Your task to perform on an android device: check data usage Image 0: 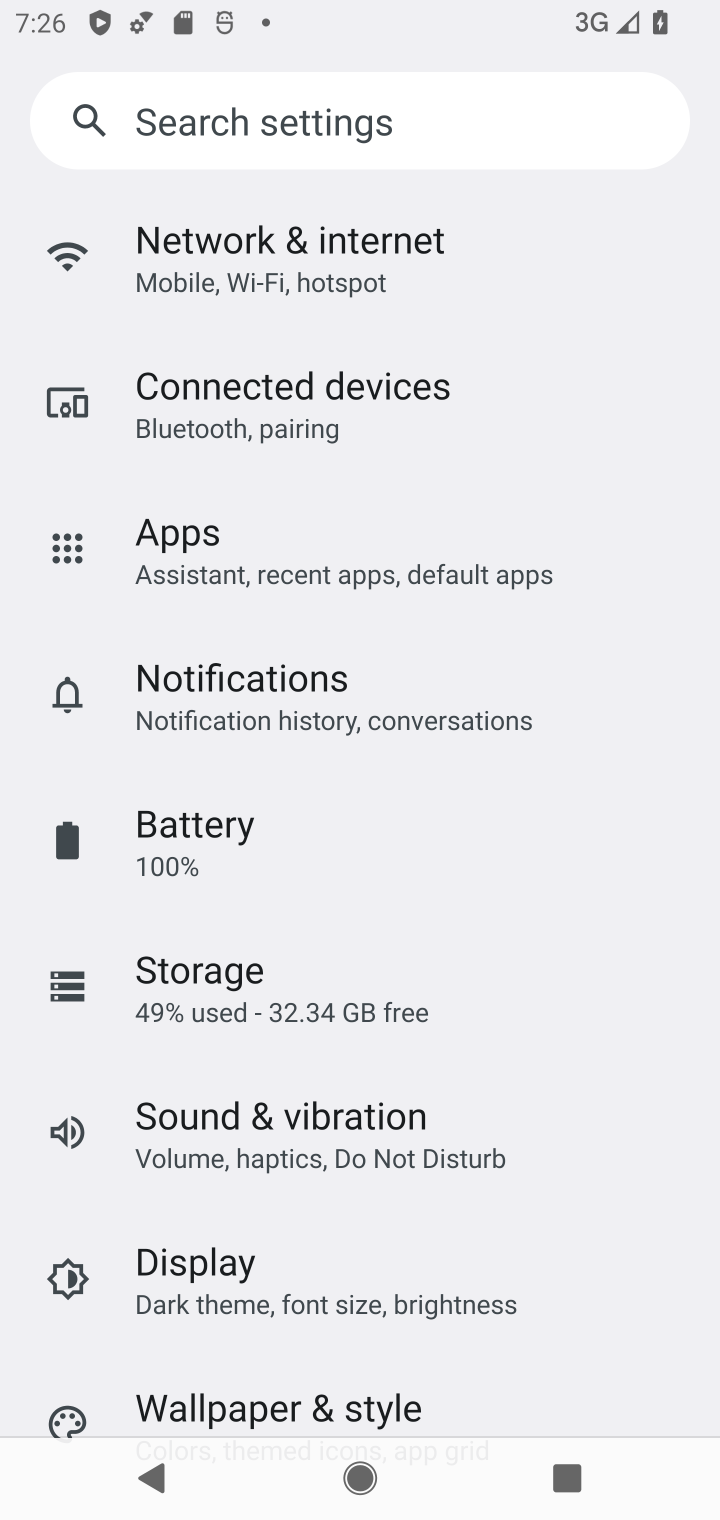
Step 0: press home button
Your task to perform on an android device: check data usage Image 1: 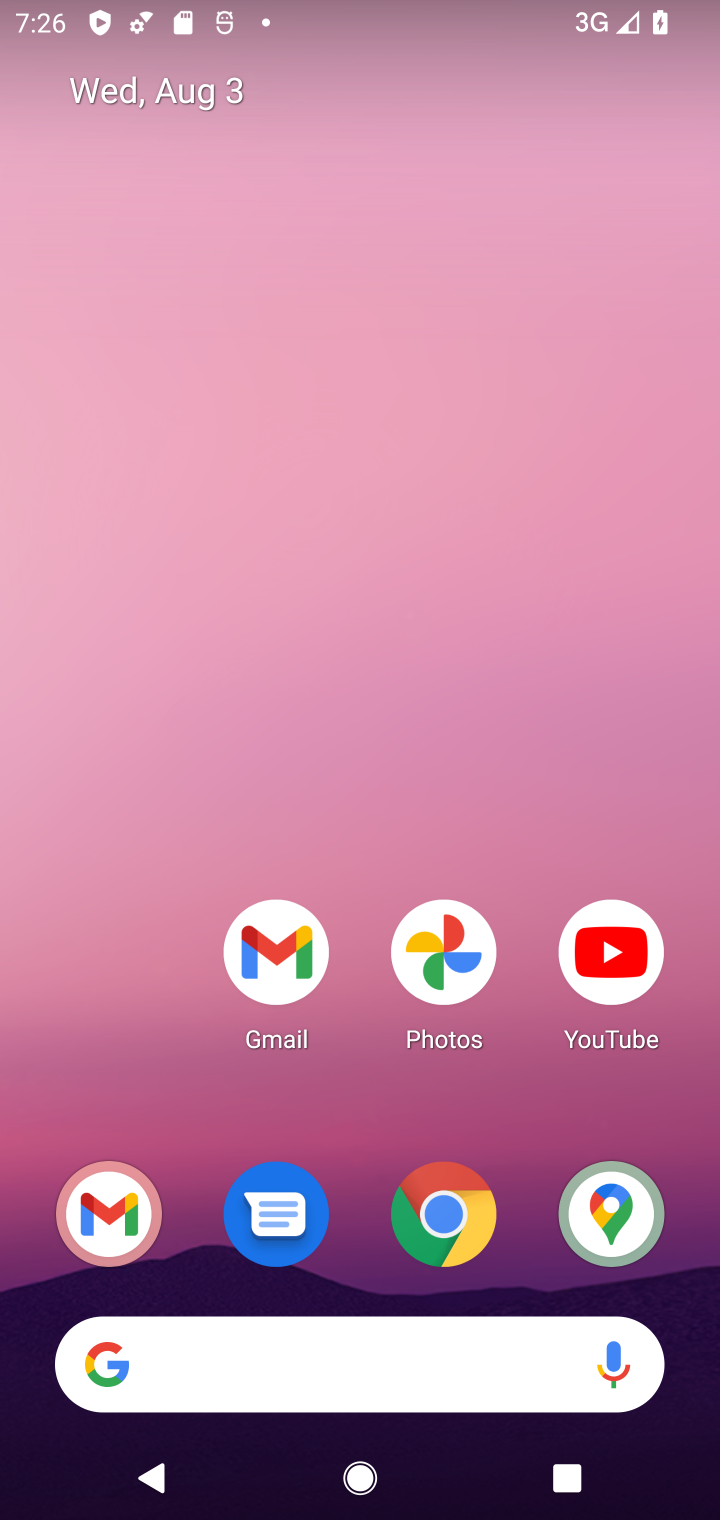
Step 1: drag from (30, 1042) to (173, 7)
Your task to perform on an android device: check data usage Image 2: 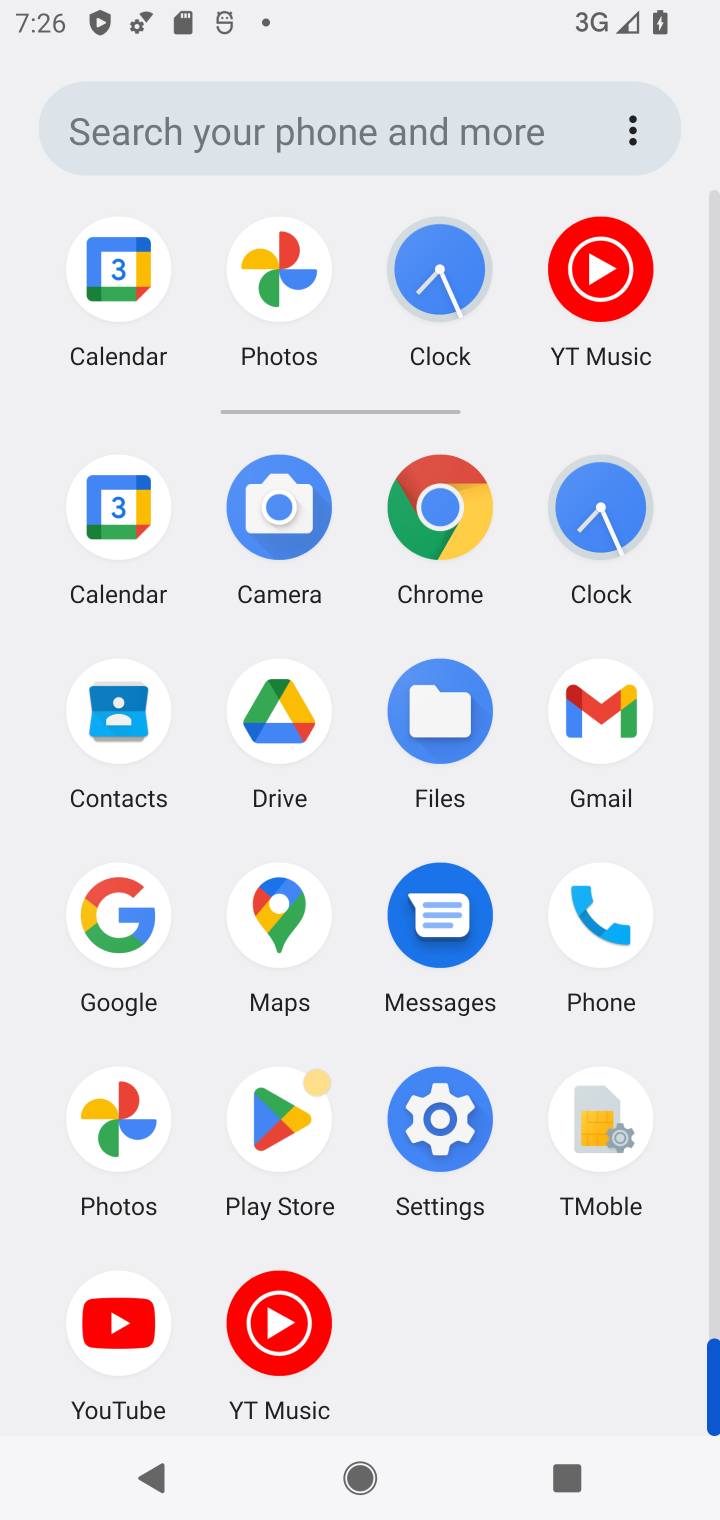
Step 2: click (459, 1131)
Your task to perform on an android device: check data usage Image 3: 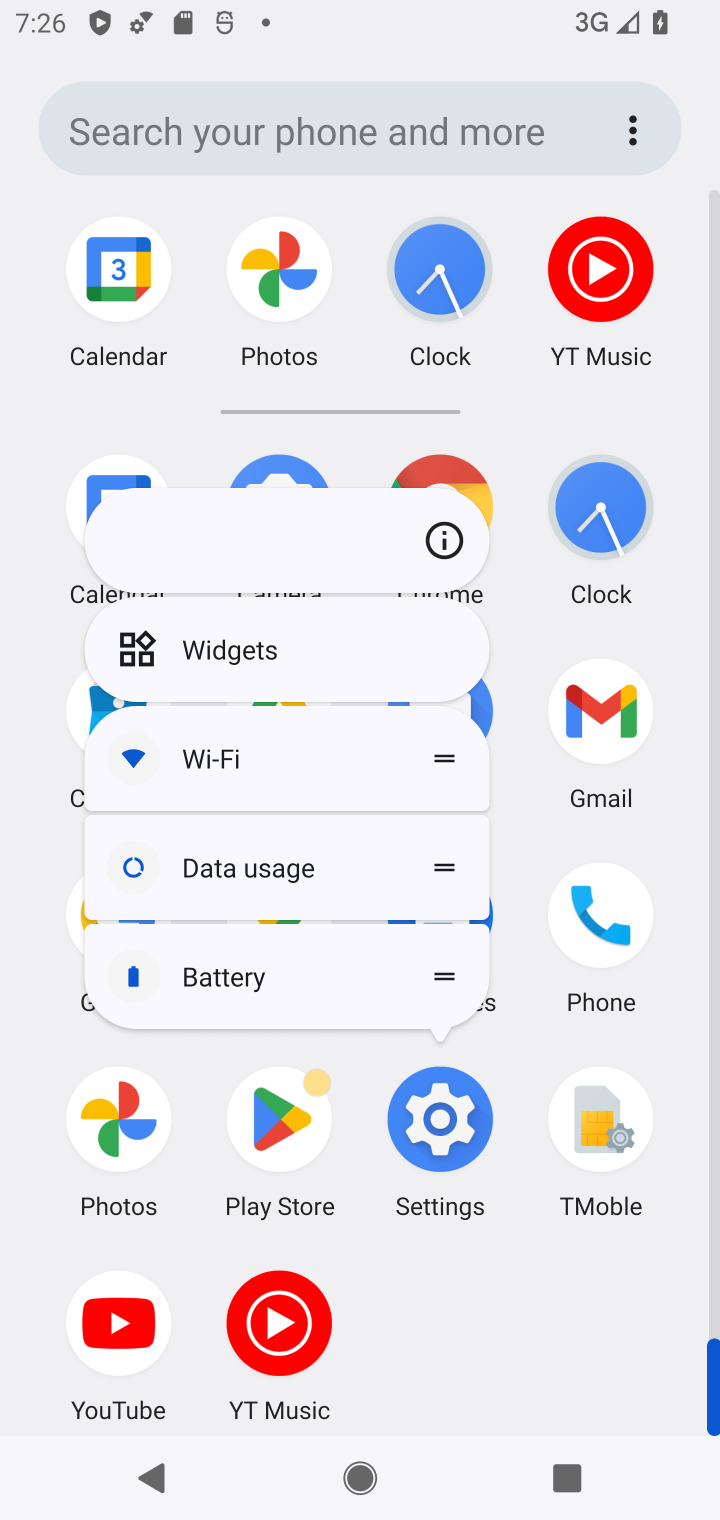
Step 3: click (452, 1121)
Your task to perform on an android device: check data usage Image 4: 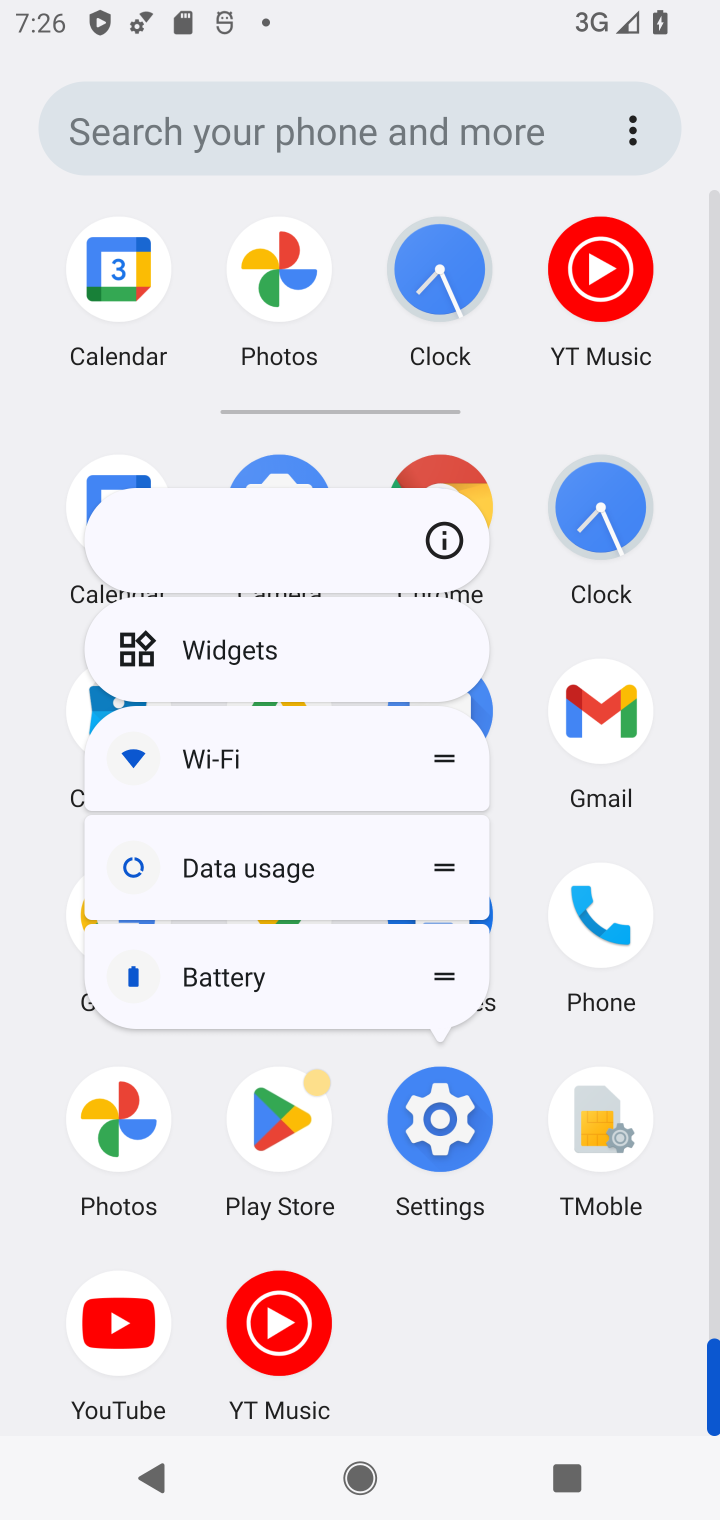
Step 4: click (445, 1110)
Your task to perform on an android device: check data usage Image 5: 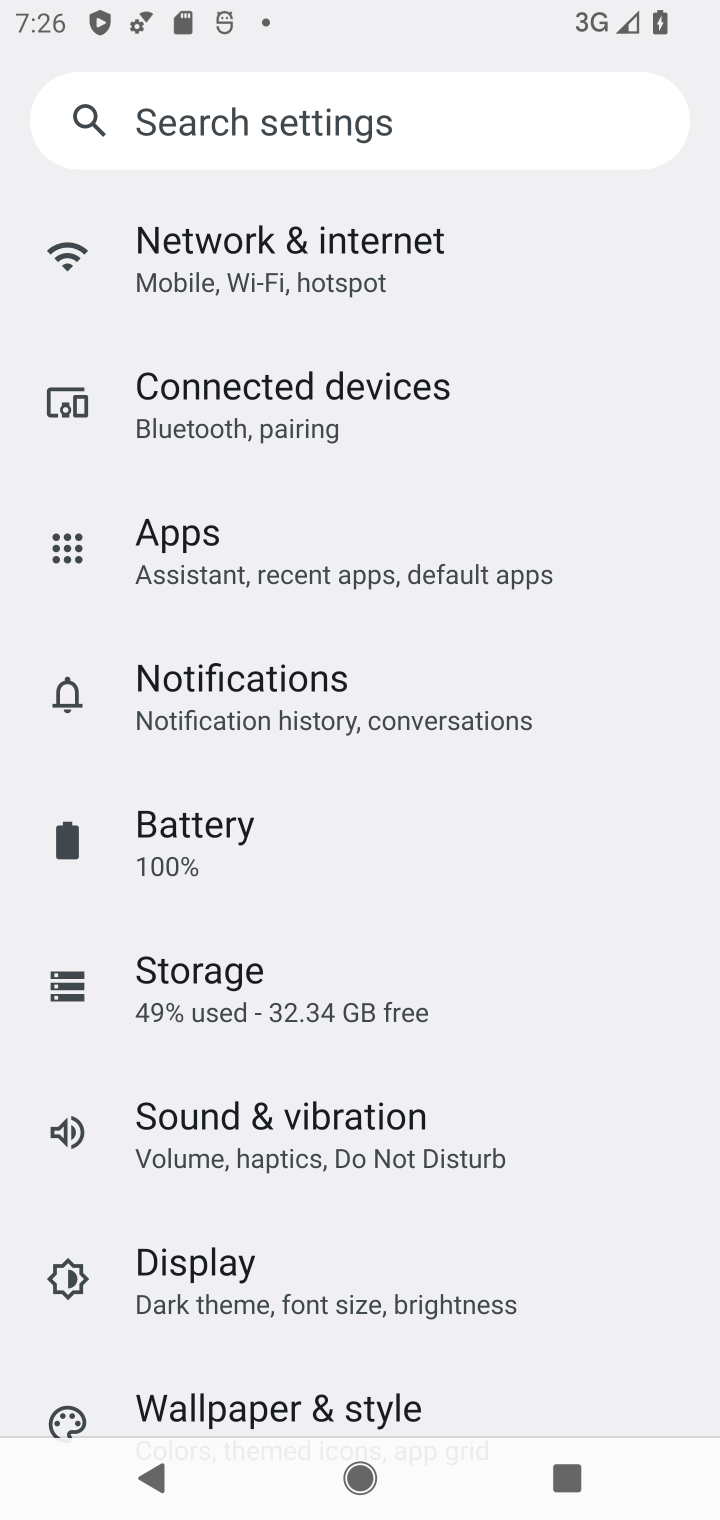
Step 5: click (419, 286)
Your task to perform on an android device: check data usage Image 6: 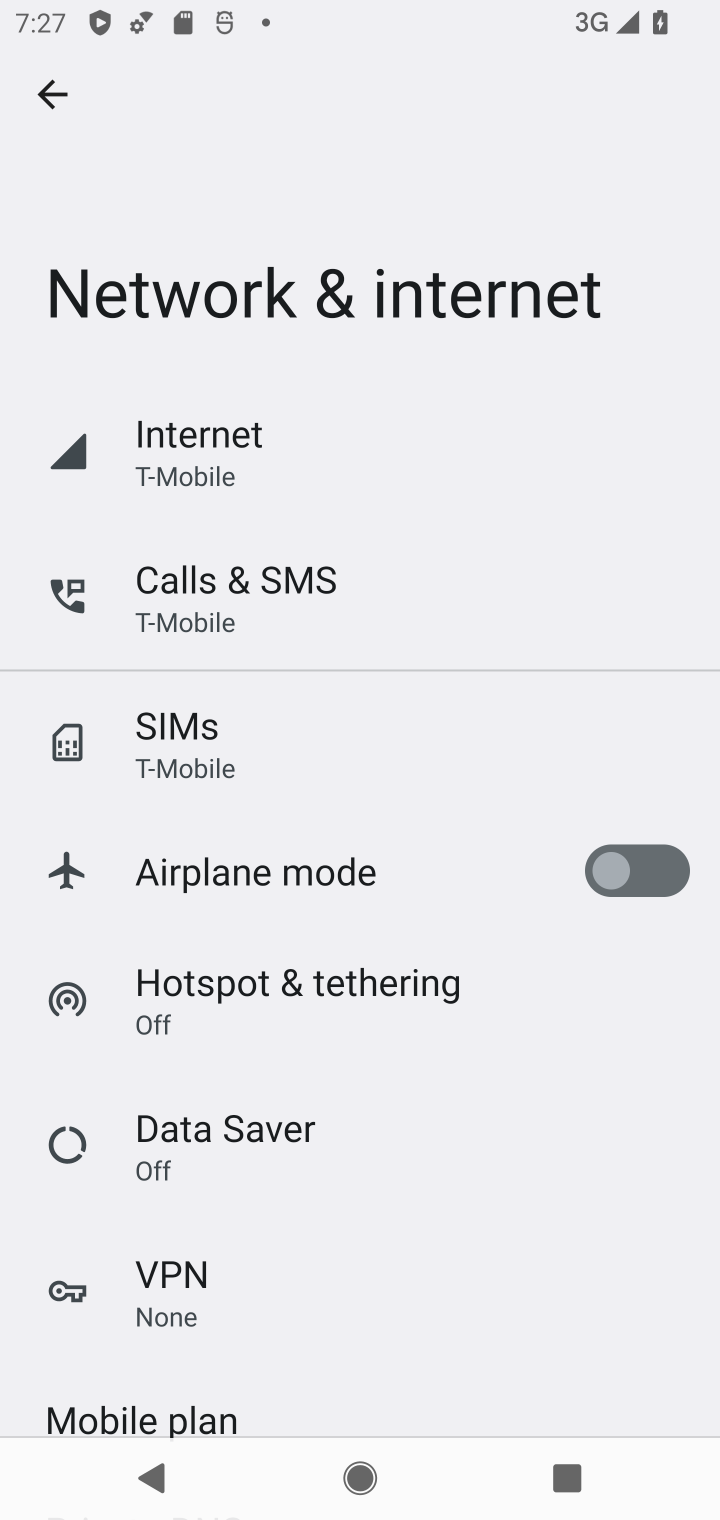
Step 6: click (144, 467)
Your task to perform on an android device: check data usage Image 7: 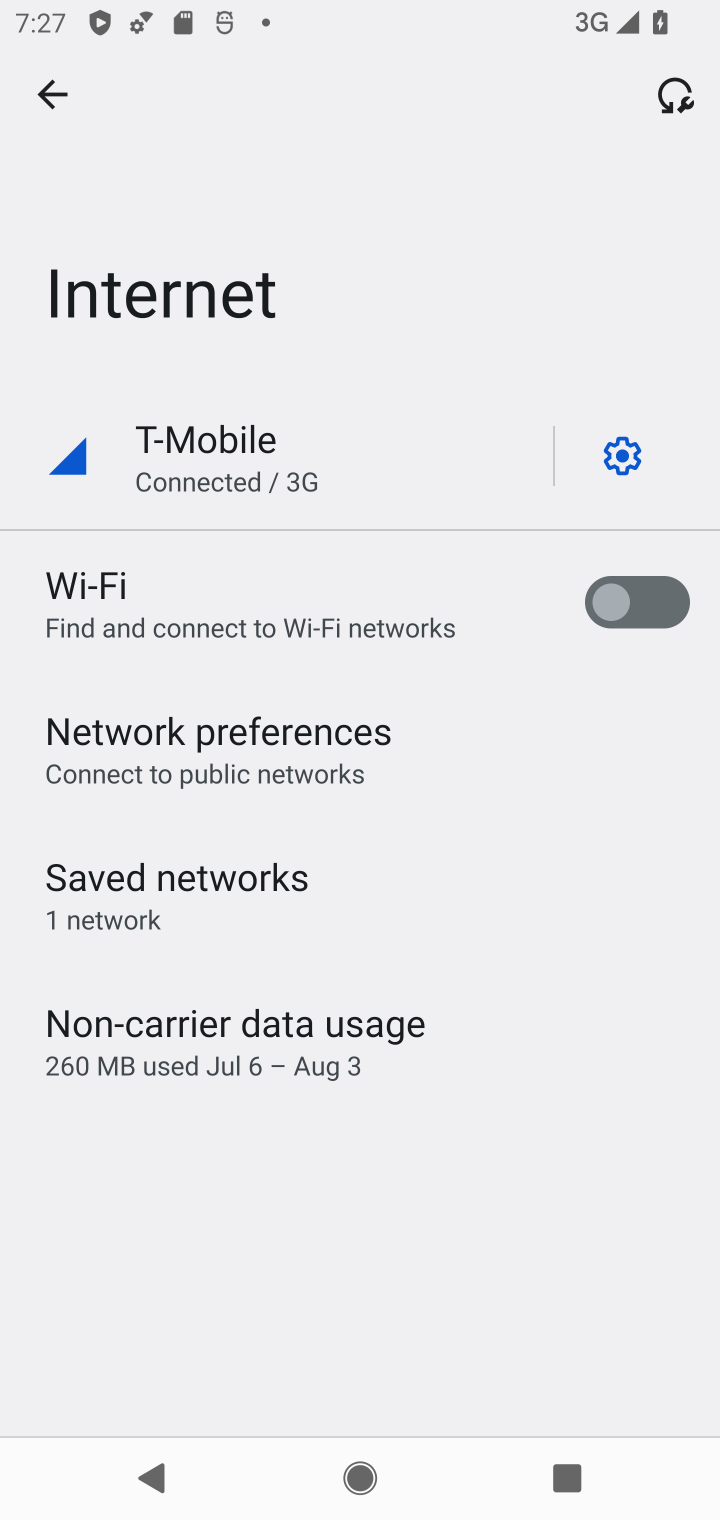
Step 7: task complete